Your task to perform on an android device: change the upload size in google photos Image 0: 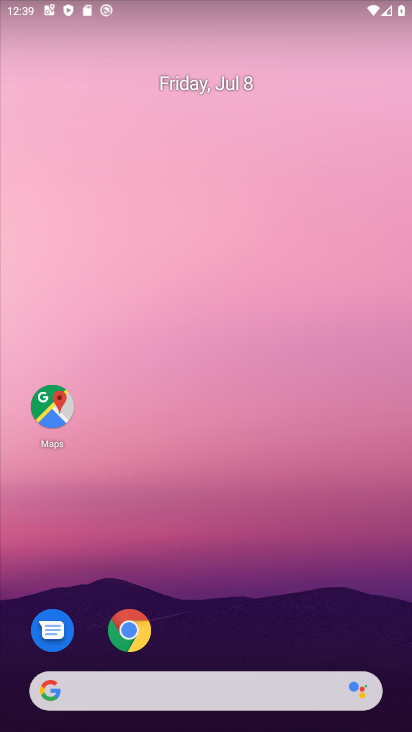
Step 0: drag from (377, 636) to (210, 19)
Your task to perform on an android device: change the upload size in google photos Image 1: 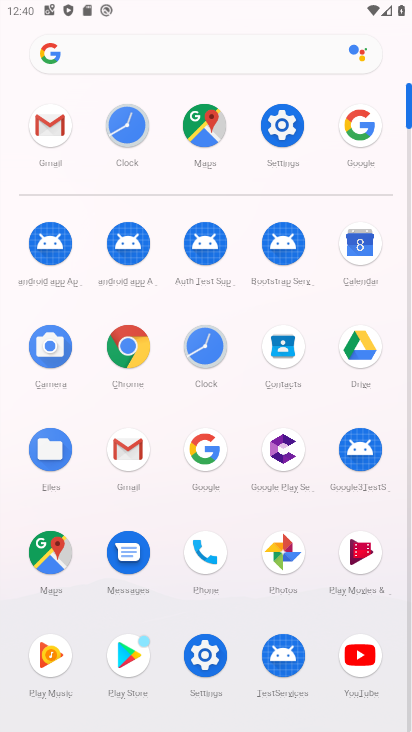
Step 1: click (282, 546)
Your task to perform on an android device: change the upload size in google photos Image 2: 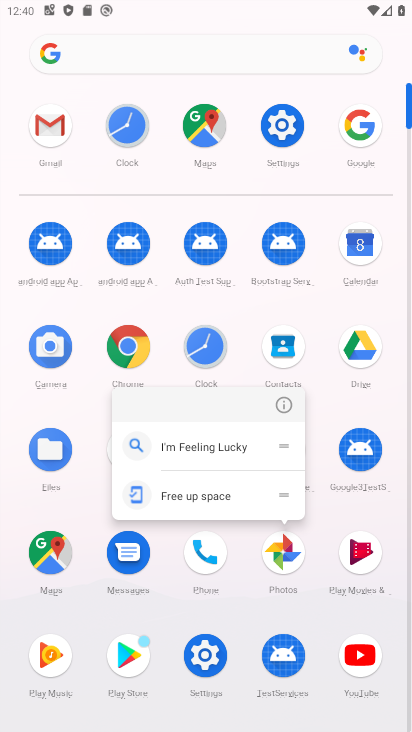
Step 2: click (282, 546)
Your task to perform on an android device: change the upload size in google photos Image 3: 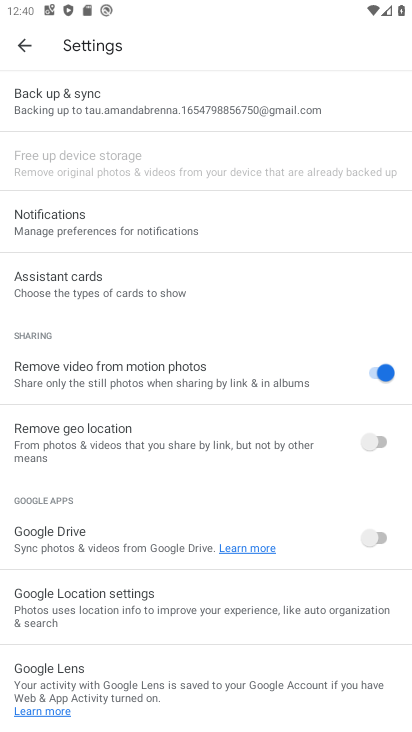
Step 3: press back button
Your task to perform on an android device: change the upload size in google photos Image 4: 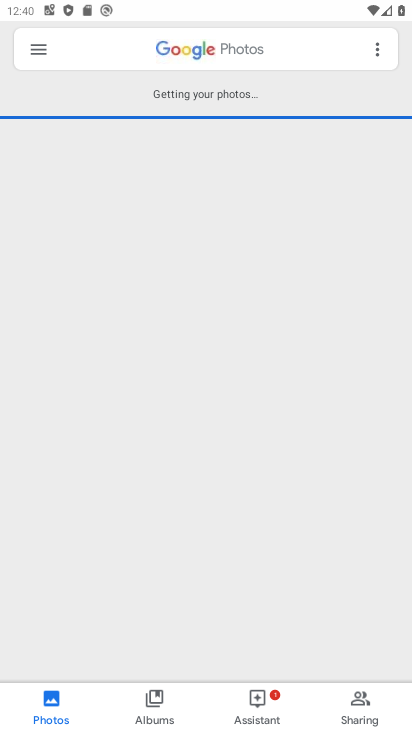
Step 4: click (35, 45)
Your task to perform on an android device: change the upload size in google photos Image 5: 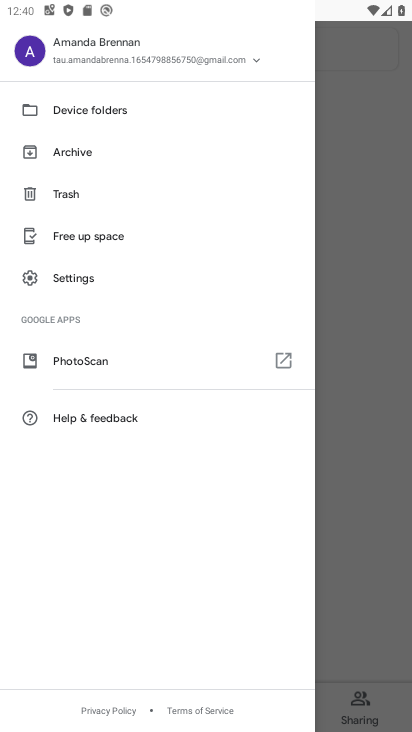
Step 5: click (84, 272)
Your task to perform on an android device: change the upload size in google photos Image 6: 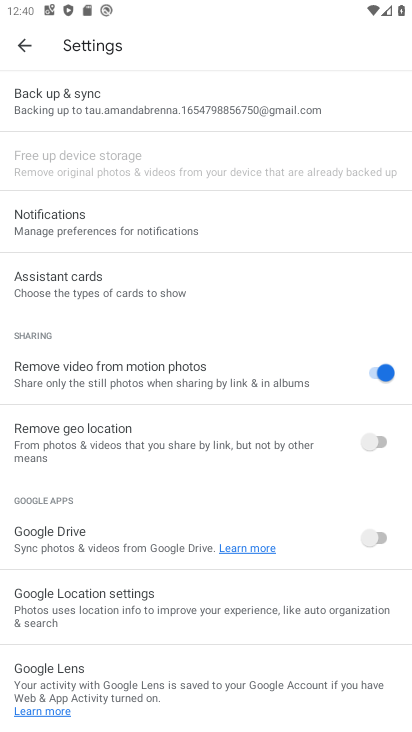
Step 6: task complete